Your task to perform on an android device: empty trash in google photos Image 0: 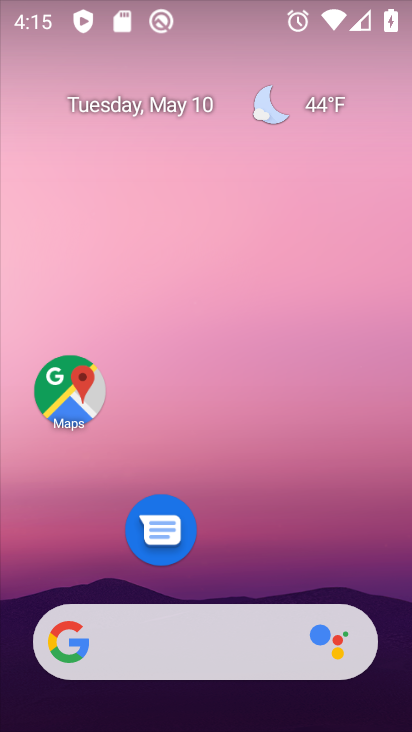
Step 0: drag from (224, 550) to (311, 19)
Your task to perform on an android device: empty trash in google photos Image 1: 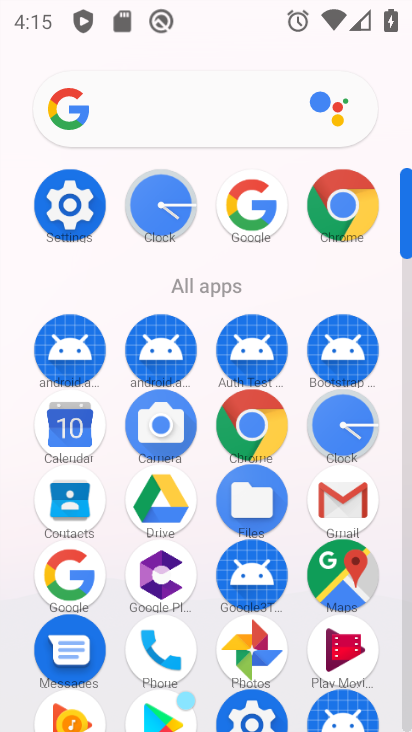
Step 1: click (243, 651)
Your task to perform on an android device: empty trash in google photos Image 2: 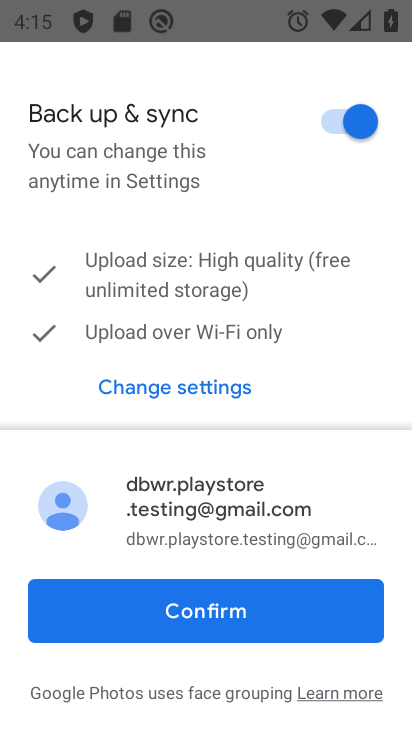
Step 2: click (223, 615)
Your task to perform on an android device: empty trash in google photos Image 3: 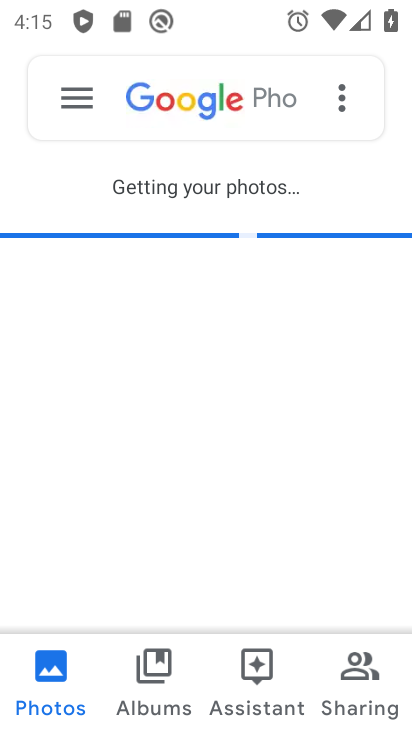
Step 3: click (52, 89)
Your task to perform on an android device: empty trash in google photos Image 4: 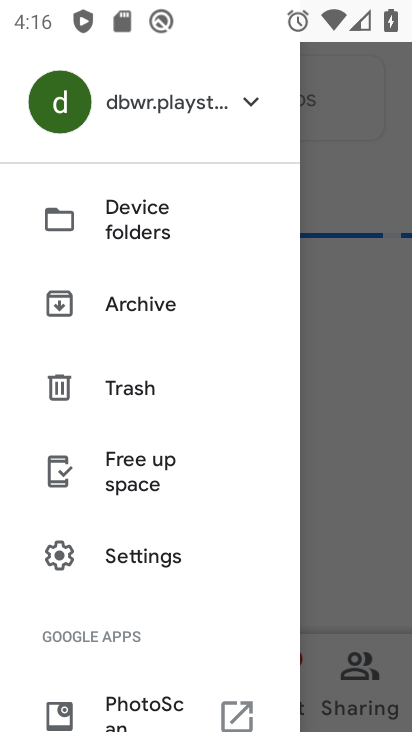
Step 4: click (133, 388)
Your task to perform on an android device: empty trash in google photos Image 5: 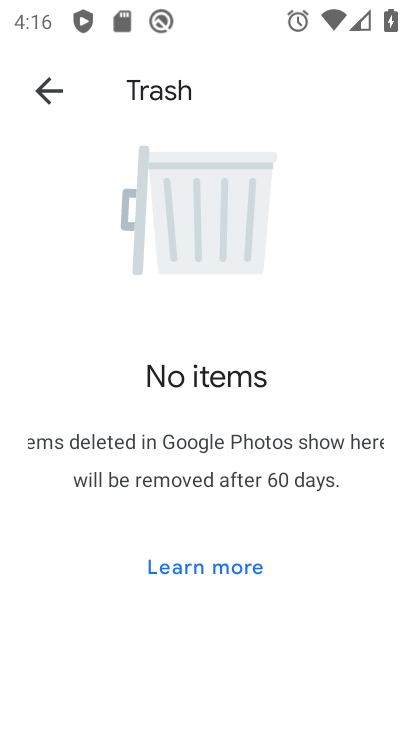
Step 5: task complete